Your task to perform on an android device: clear history in the chrome app Image 0: 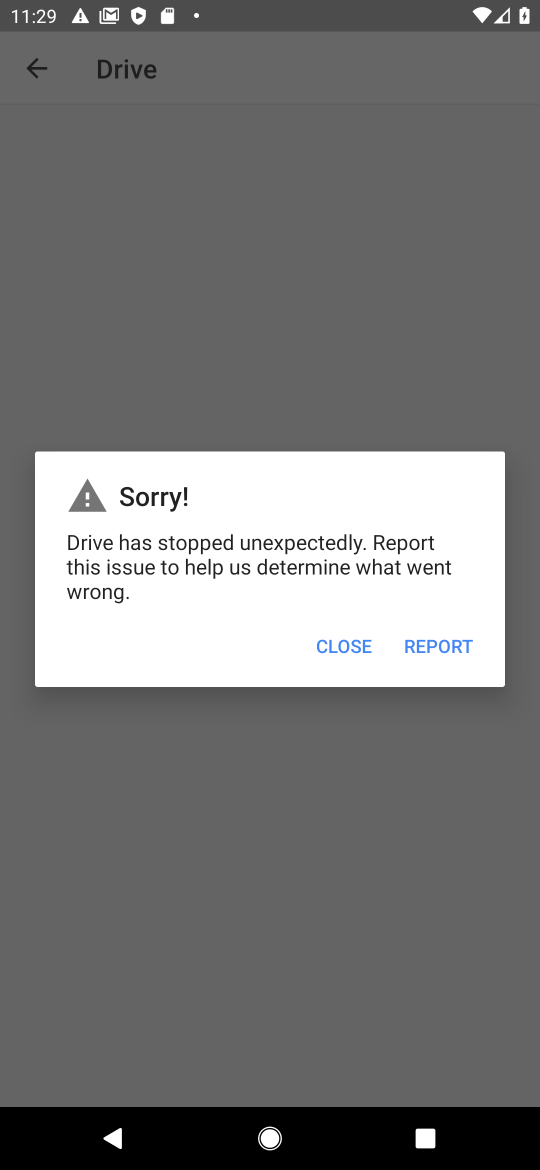
Step 0: press home button
Your task to perform on an android device: clear history in the chrome app Image 1: 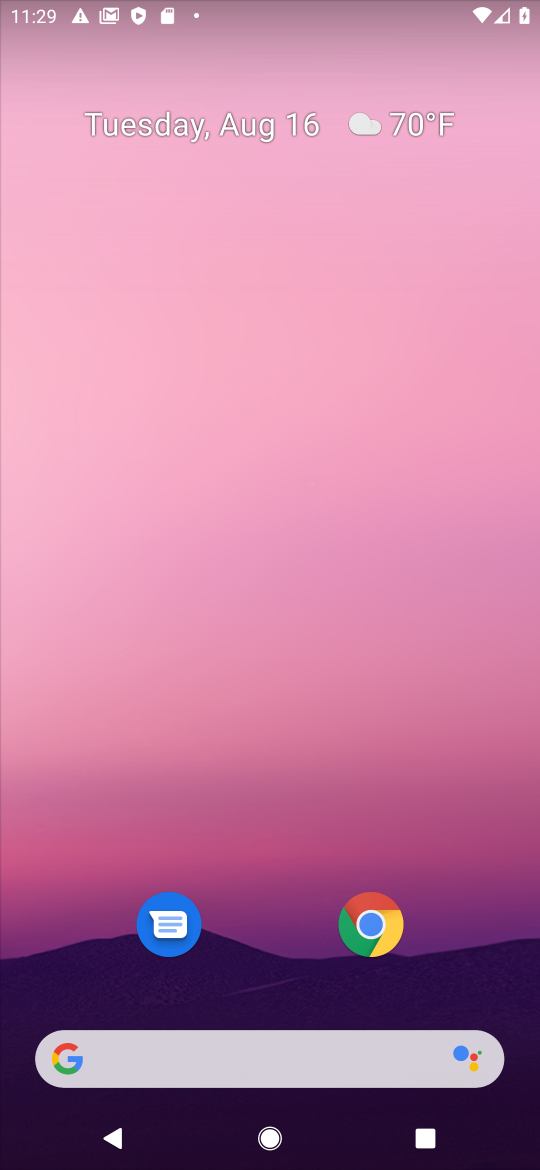
Step 1: click (365, 930)
Your task to perform on an android device: clear history in the chrome app Image 2: 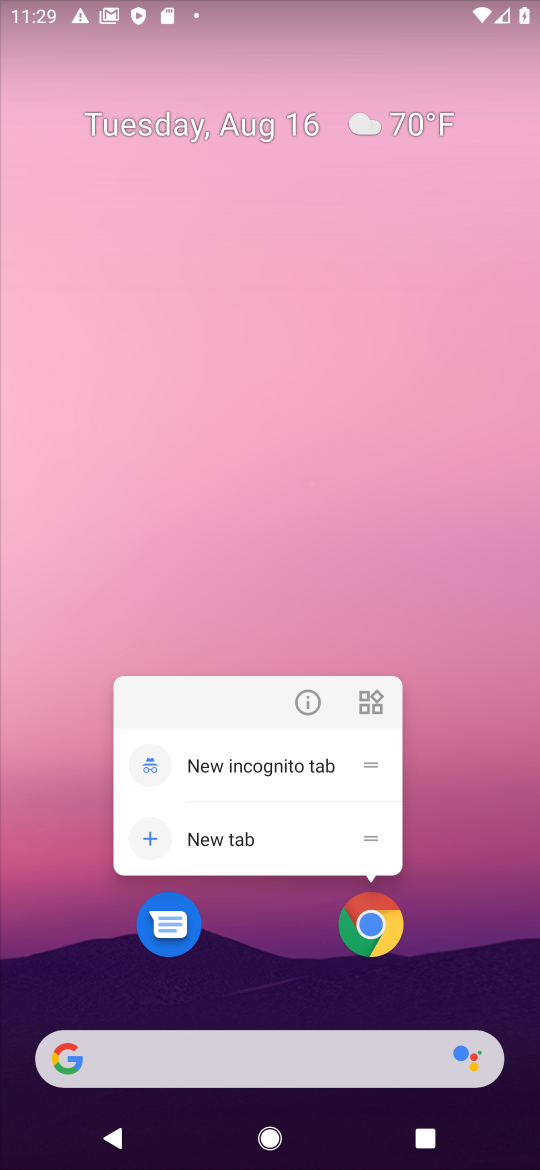
Step 2: click (371, 926)
Your task to perform on an android device: clear history in the chrome app Image 3: 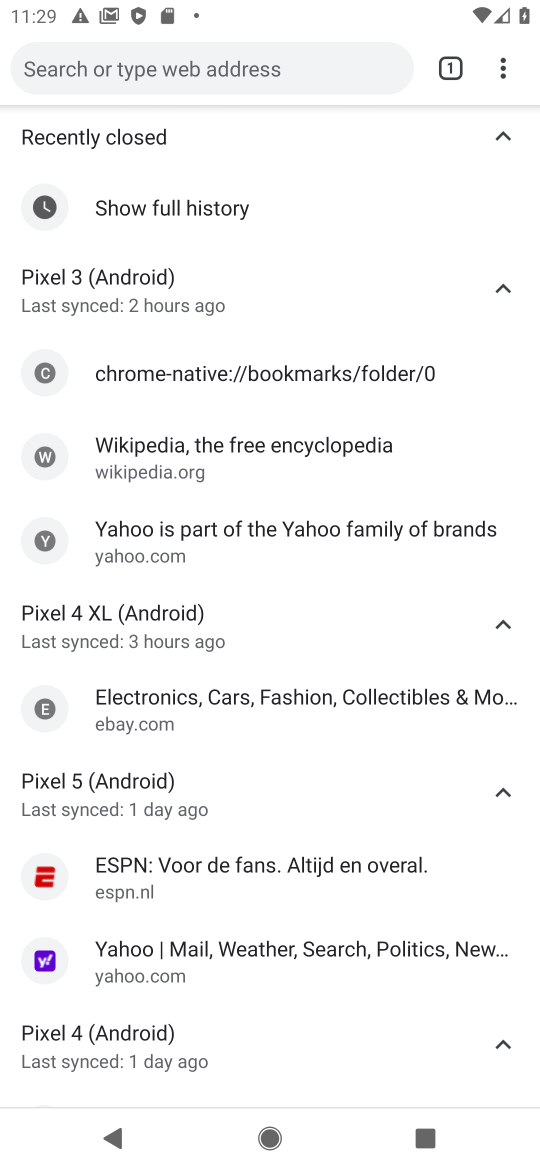
Step 3: click (509, 74)
Your task to perform on an android device: clear history in the chrome app Image 4: 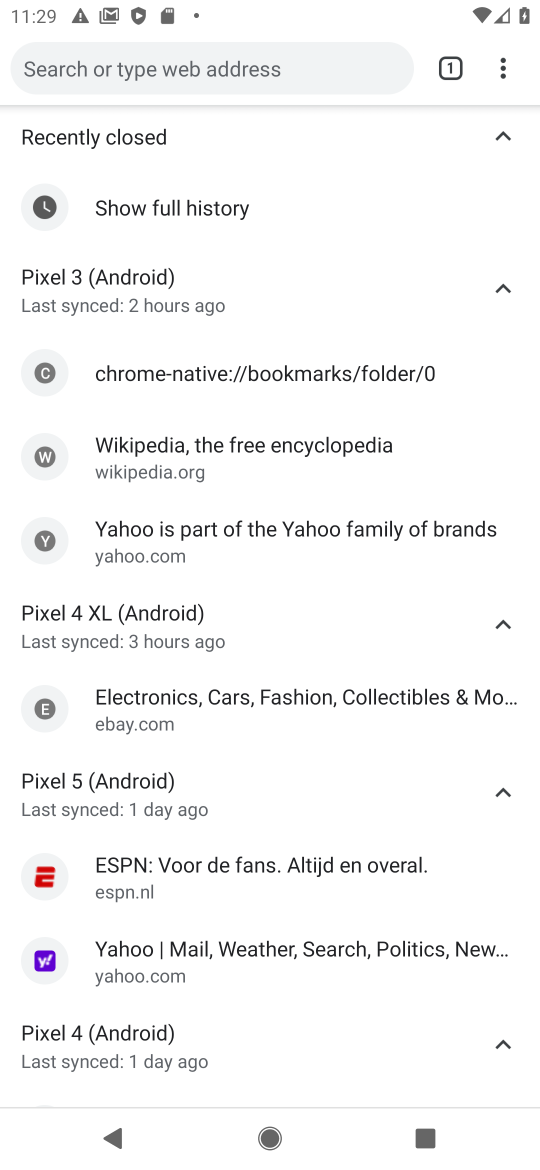
Step 4: click (494, 64)
Your task to perform on an android device: clear history in the chrome app Image 5: 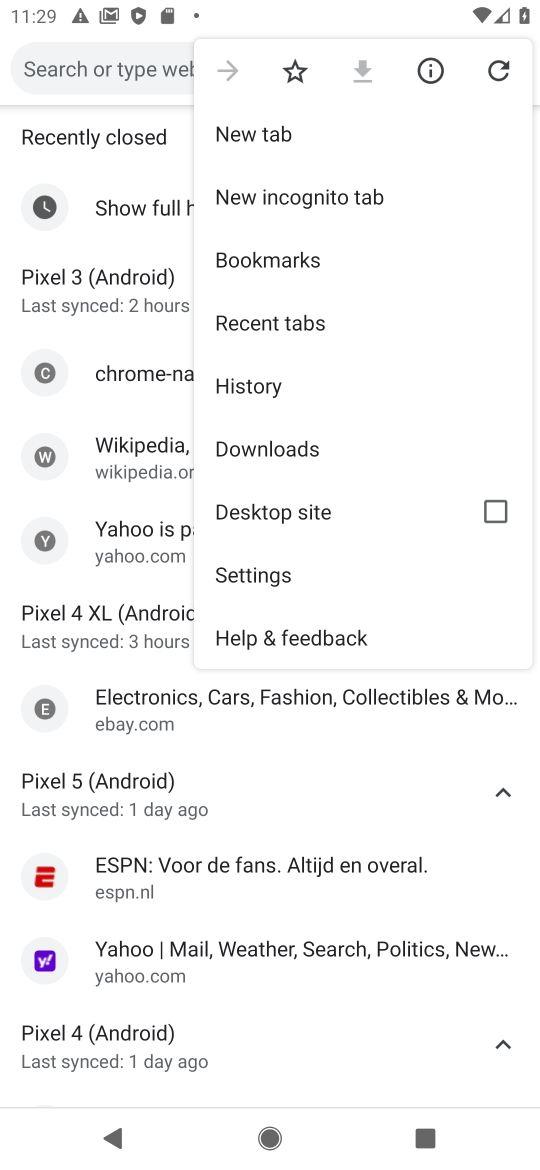
Step 5: click (292, 381)
Your task to perform on an android device: clear history in the chrome app Image 6: 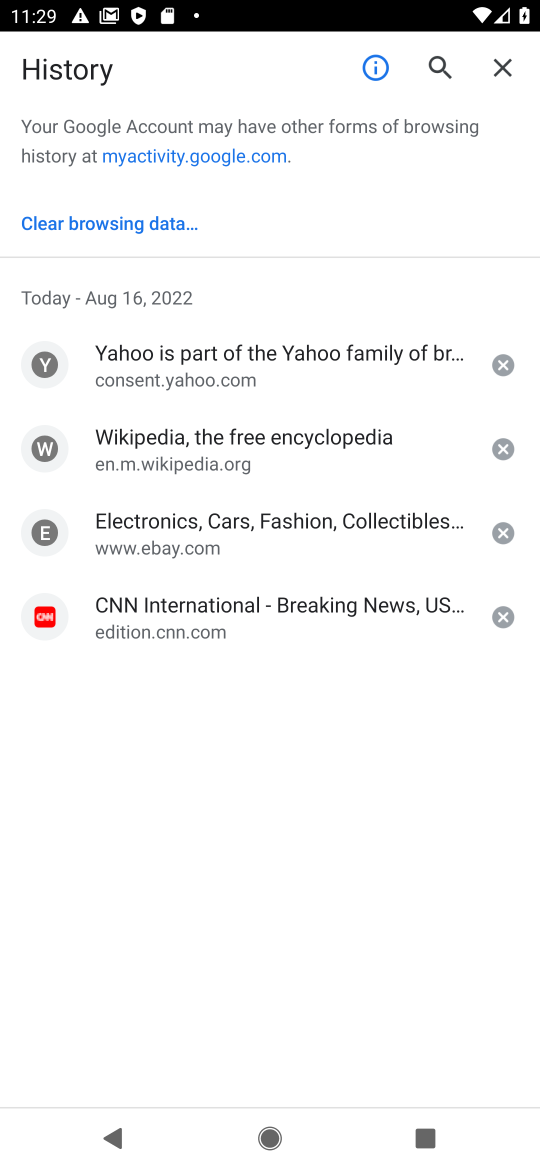
Step 6: click (135, 222)
Your task to perform on an android device: clear history in the chrome app Image 7: 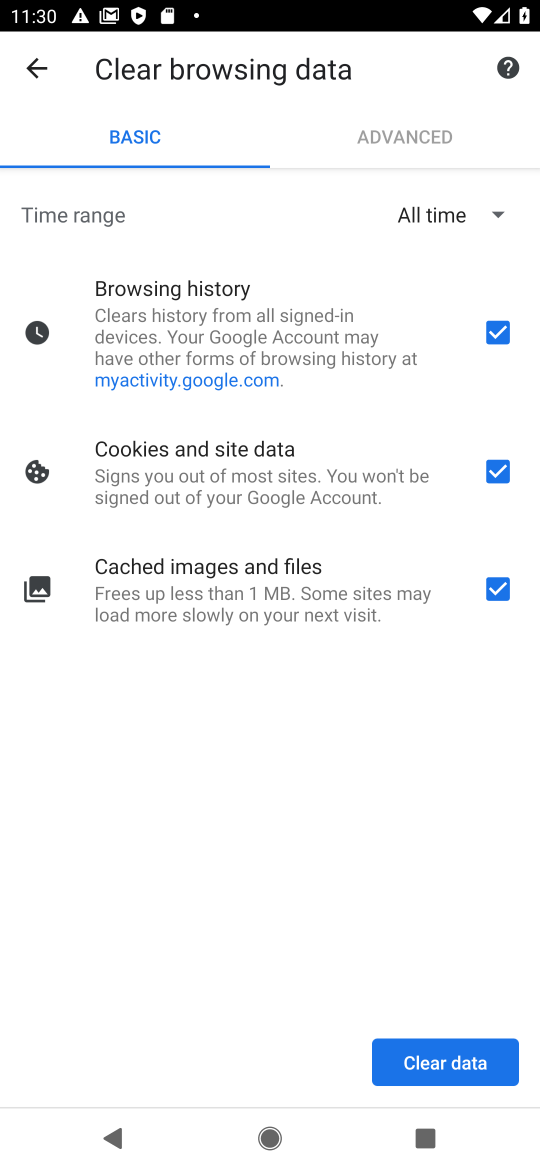
Step 7: click (502, 465)
Your task to perform on an android device: clear history in the chrome app Image 8: 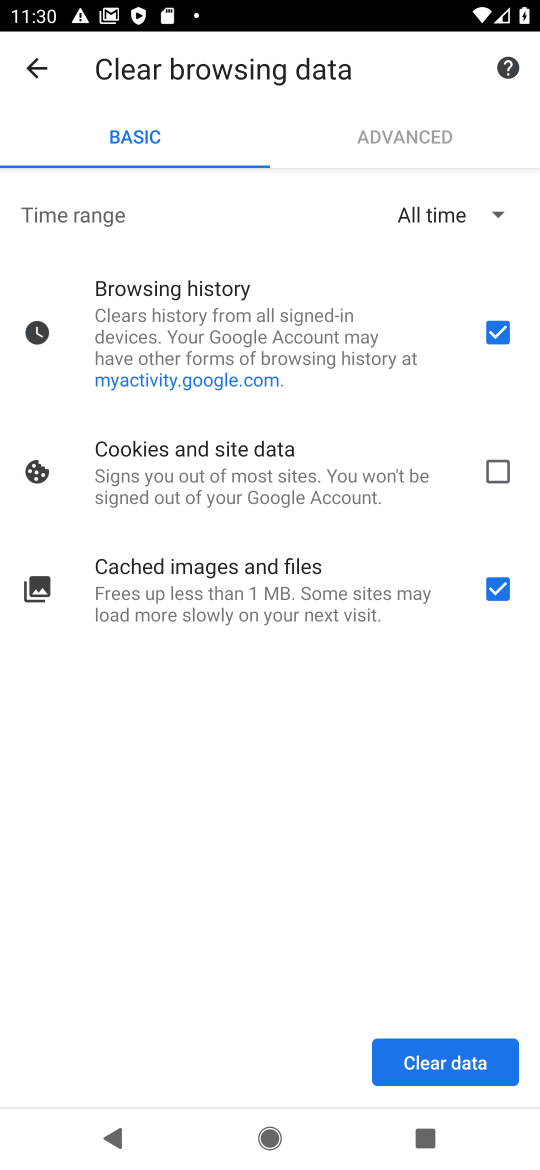
Step 8: click (499, 592)
Your task to perform on an android device: clear history in the chrome app Image 9: 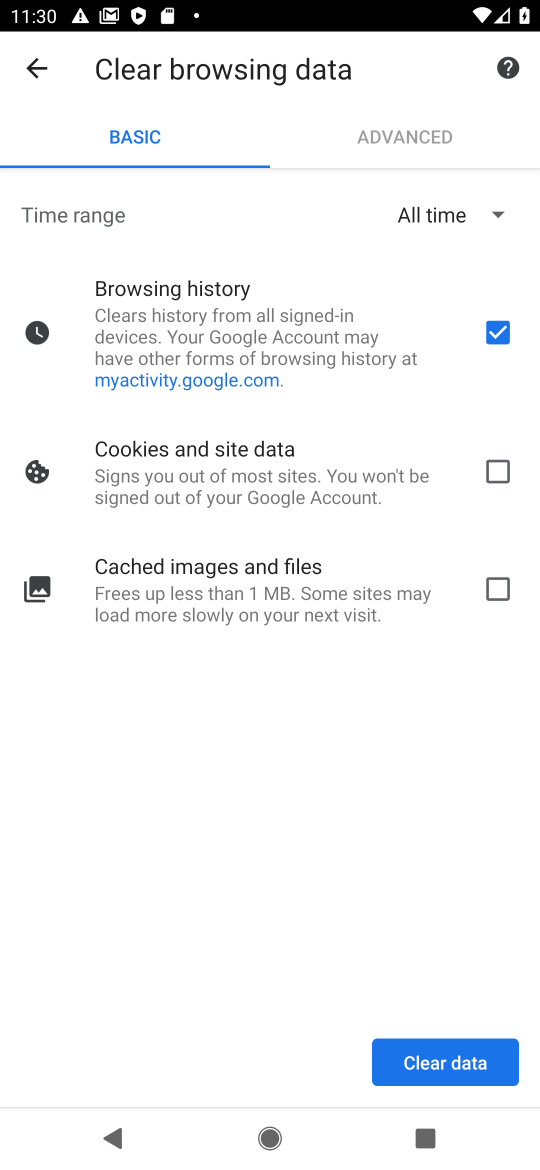
Step 9: click (443, 1059)
Your task to perform on an android device: clear history in the chrome app Image 10: 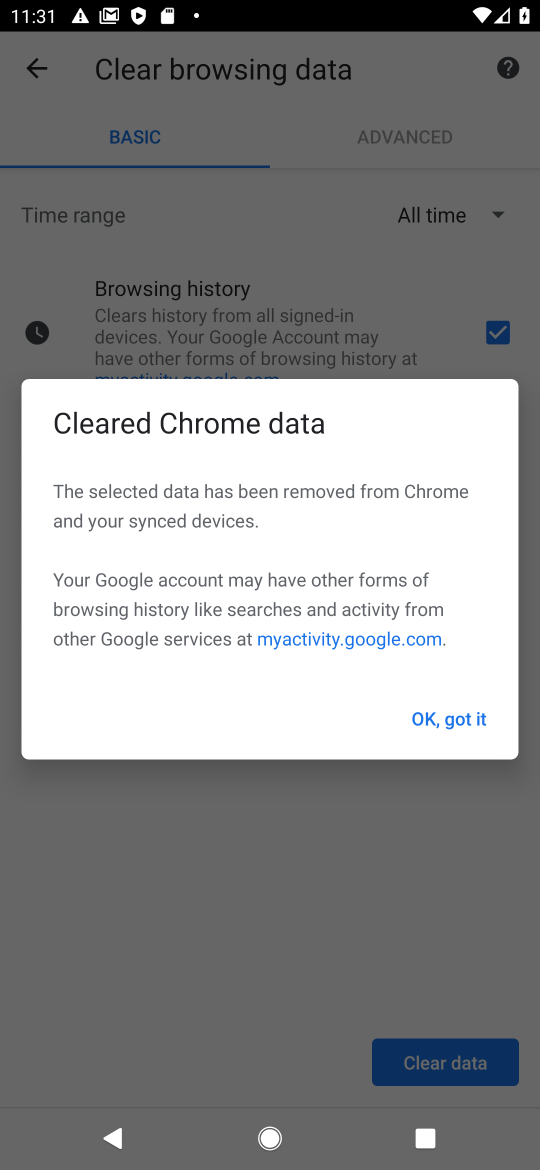
Step 10: click (436, 730)
Your task to perform on an android device: clear history in the chrome app Image 11: 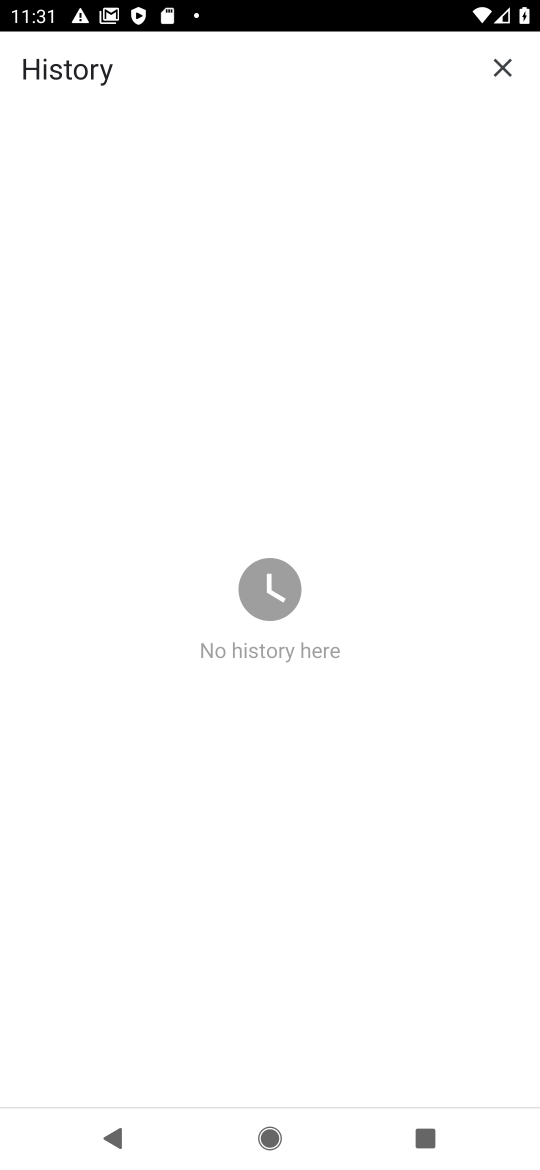
Step 11: task complete